Your task to perform on an android device: check data usage Image 0: 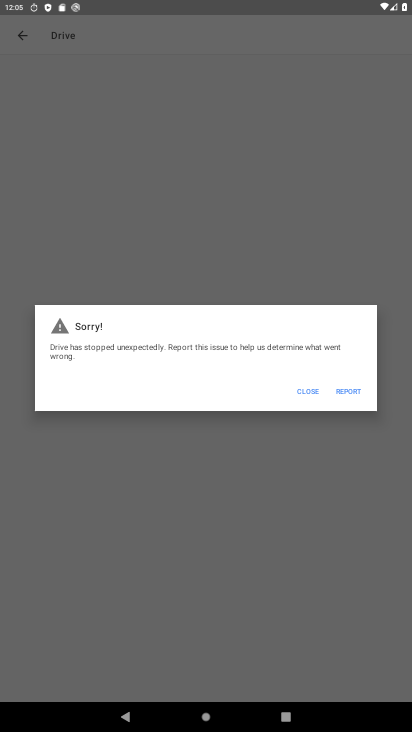
Step 0: drag from (231, 687) to (409, 503)
Your task to perform on an android device: check data usage Image 1: 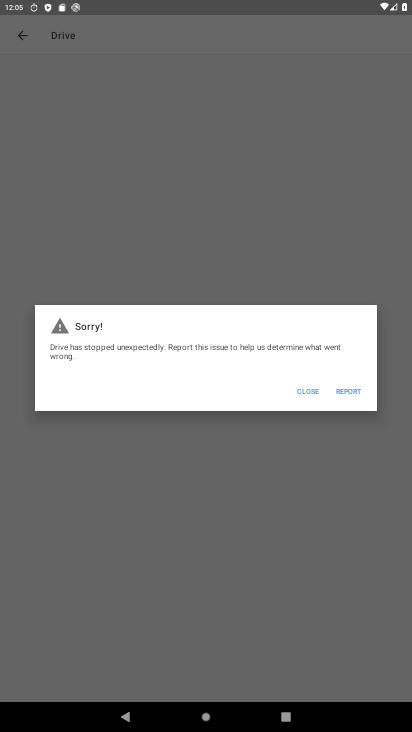
Step 1: press home button
Your task to perform on an android device: check data usage Image 2: 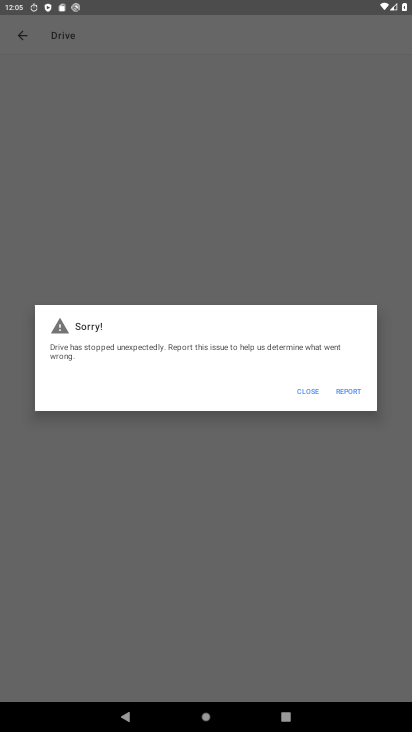
Step 2: click (406, 640)
Your task to perform on an android device: check data usage Image 3: 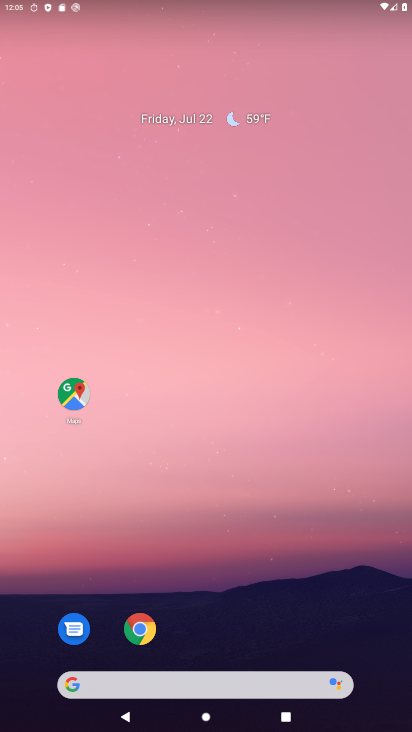
Step 3: drag from (257, 543) to (285, 11)
Your task to perform on an android device: check data usage Image 4: 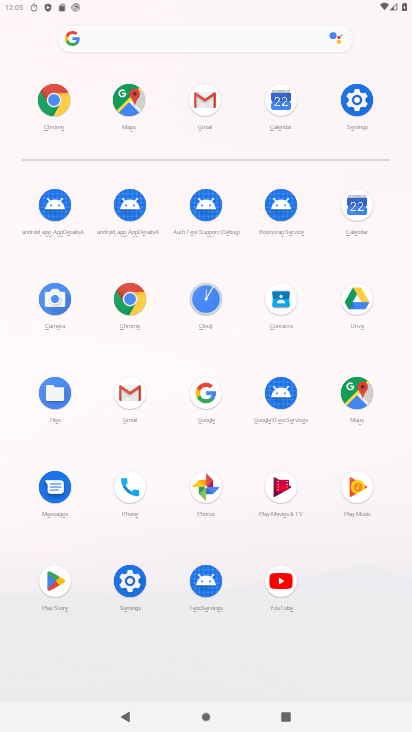
Step 4: click (356, 105)
Your task to perform on an android device: check data usage Image 5: 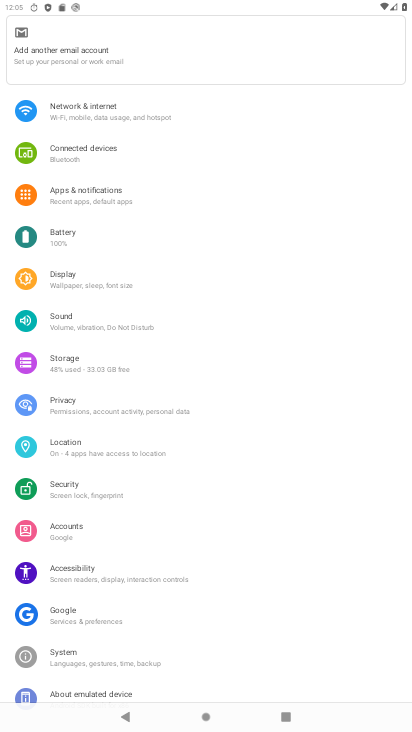
Step 5: click (126, 110)
Your task to perform on an android device: check data usage Image 6: 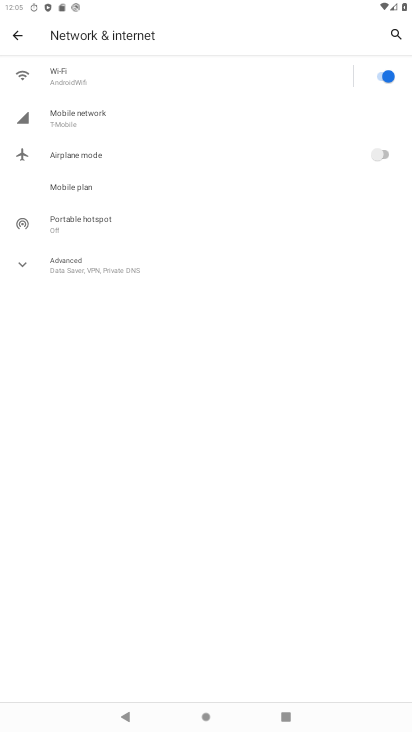
Step 6: click (105, 115)
Your task to perform on an android device: check data usage Image 7: 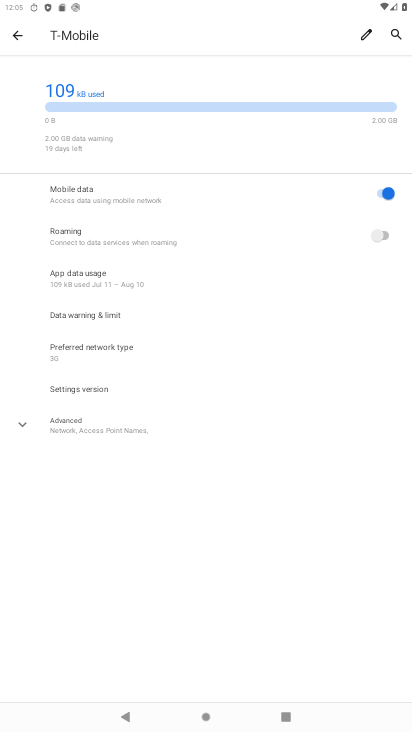
Step 7: task complete